Your task to perform on an android device: Go to privacy settings Image 0: 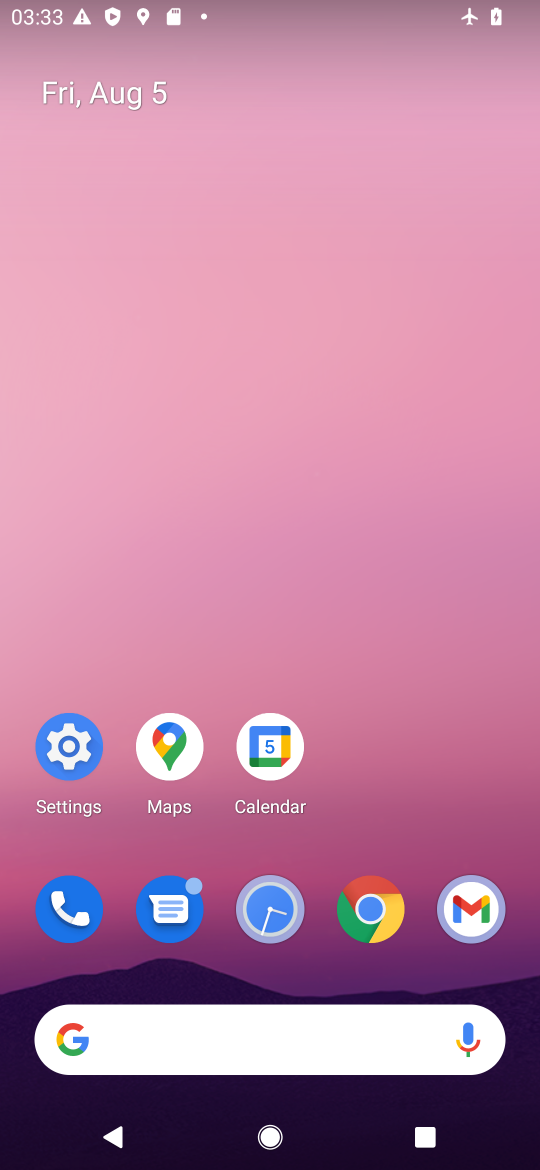
Step 0: click (56, 743)
Your task to perform on an android device: Go to privacy settings Image 1: 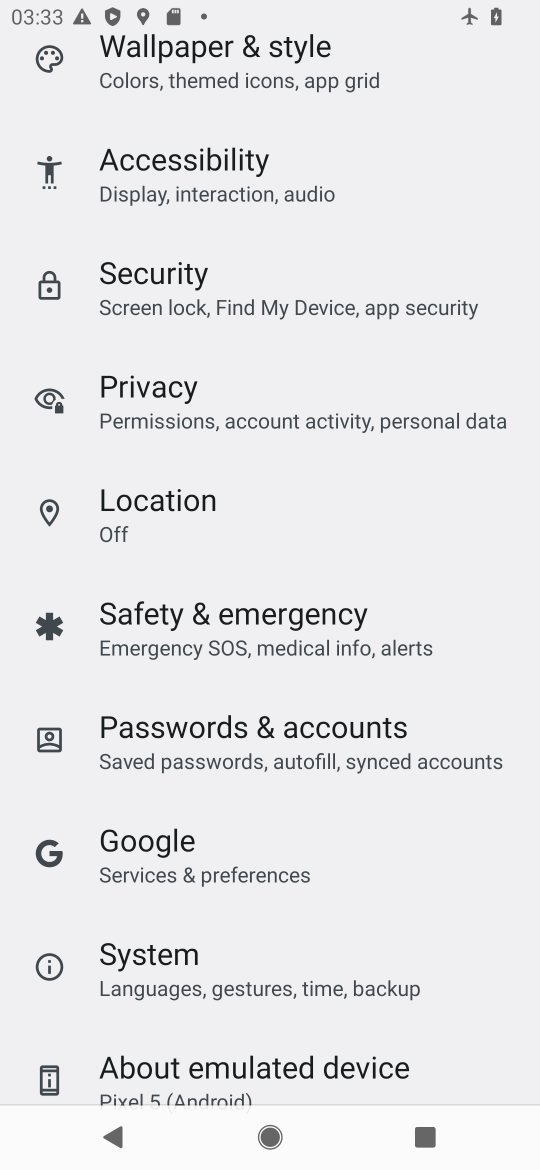
Step 1: click (162, 379)
Your task to perform on an android device: Go to privacy settings Image 2: 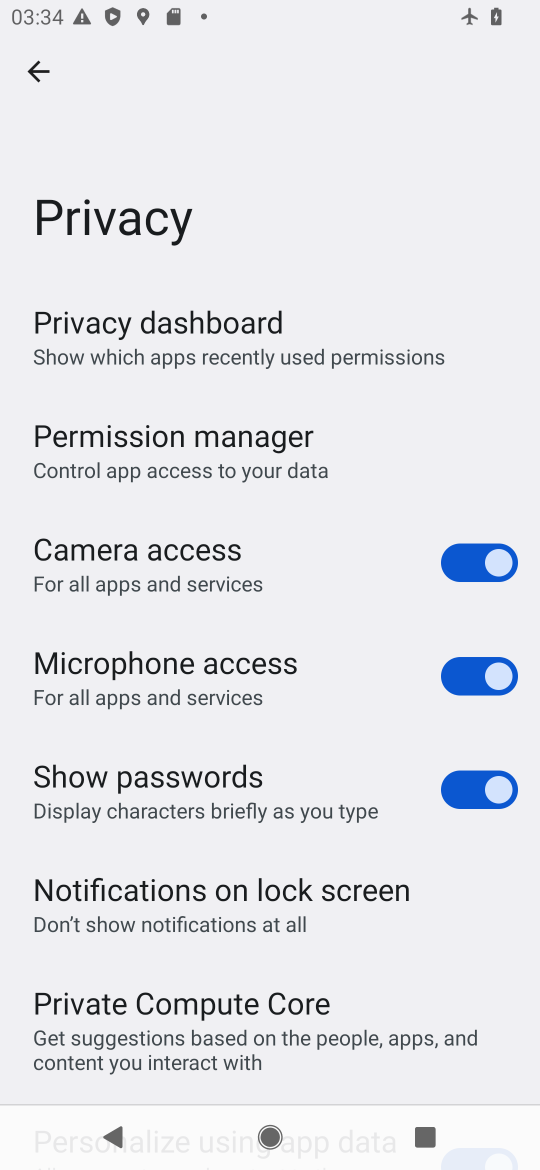
Step 2: task complete